Your task to perform on an android device: Search for "bose quietcomfort 35" on amazon, select the first entry, add it to the cart, then select checkout. Image 0: 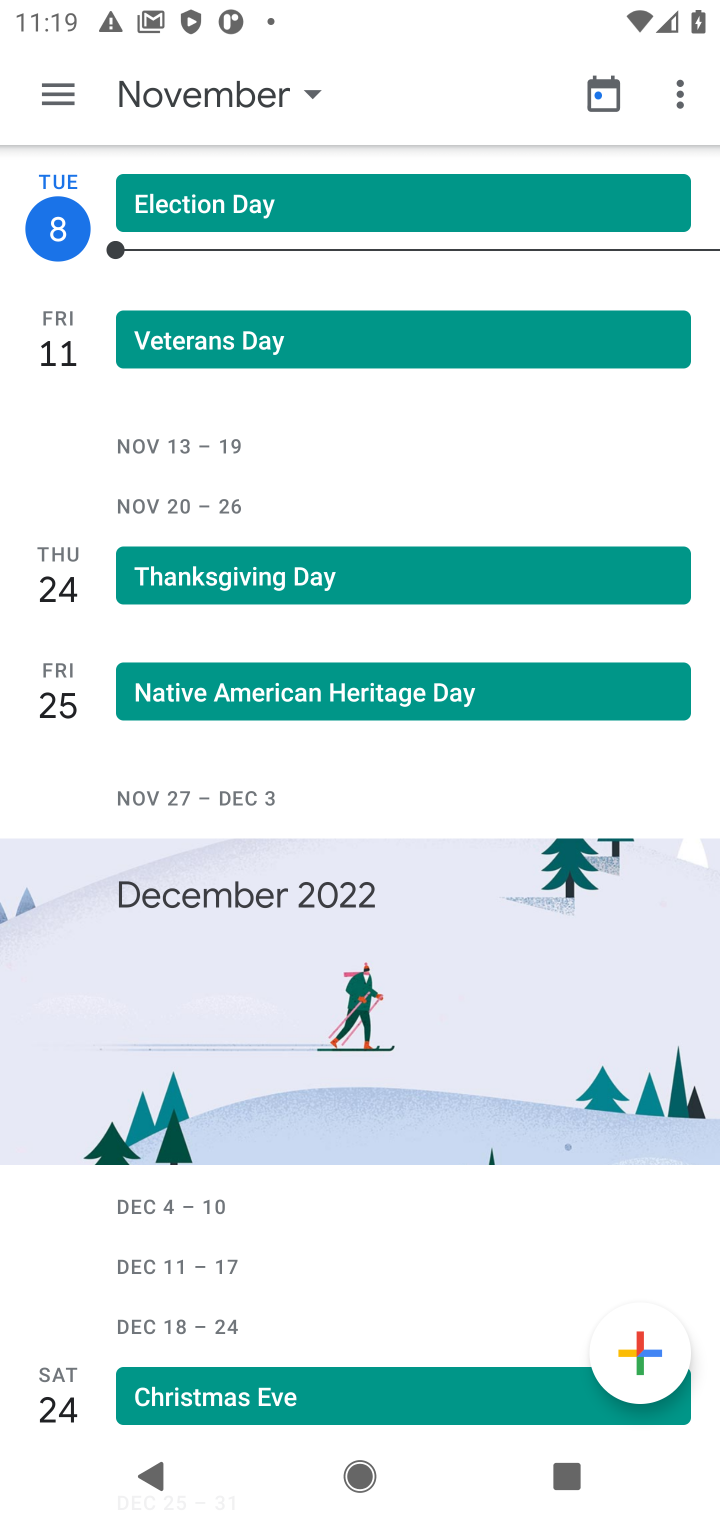
Step 0: press home button
Your task to perform on an android device: Search for "bose quietcomfort 35" on amazon, select the first entry, add it to the cart, then select checkout. Image 1: 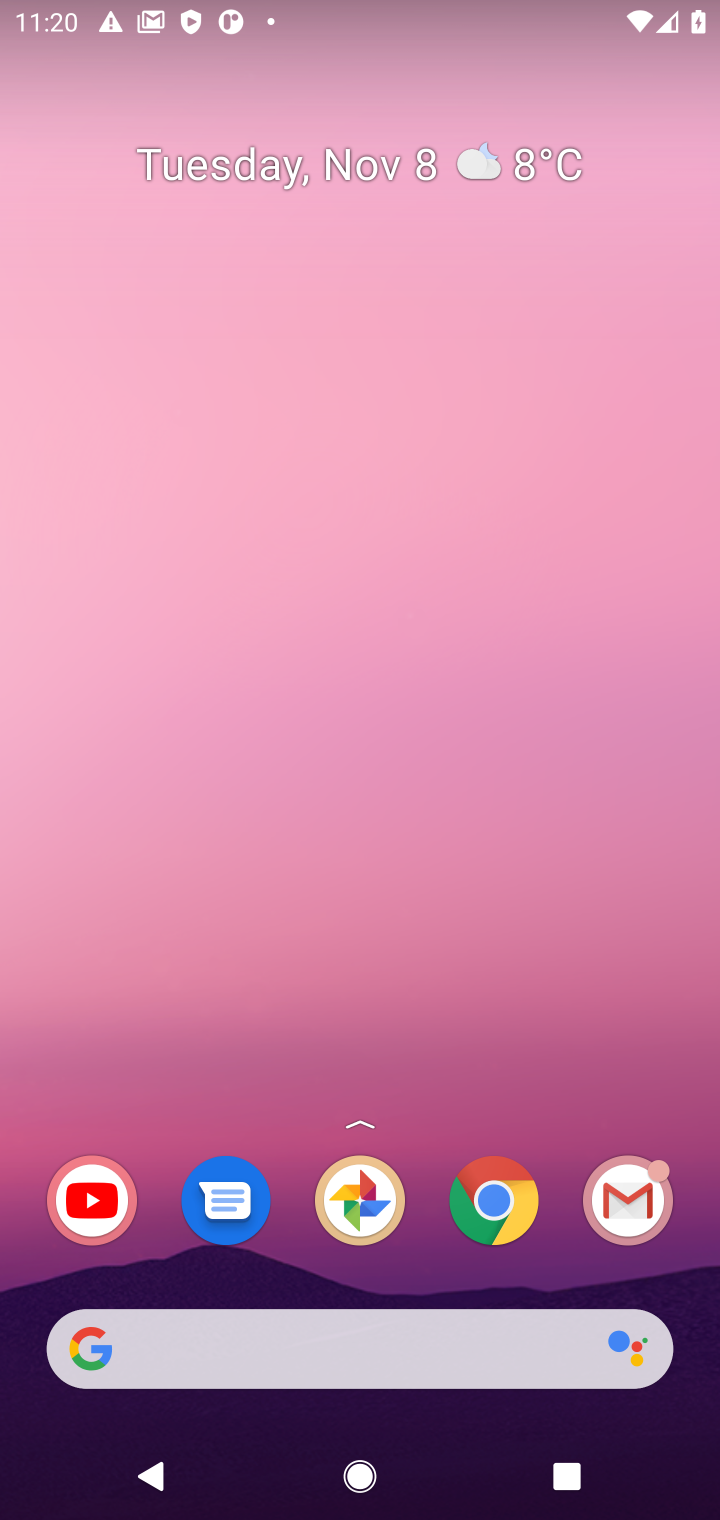
Step 1: click (406, 1371)
Your task to perform on an android device: Search for "bose quietcomfort 35" on amazon, select the first entry, add it to the cart, then select checkout. Image 2: 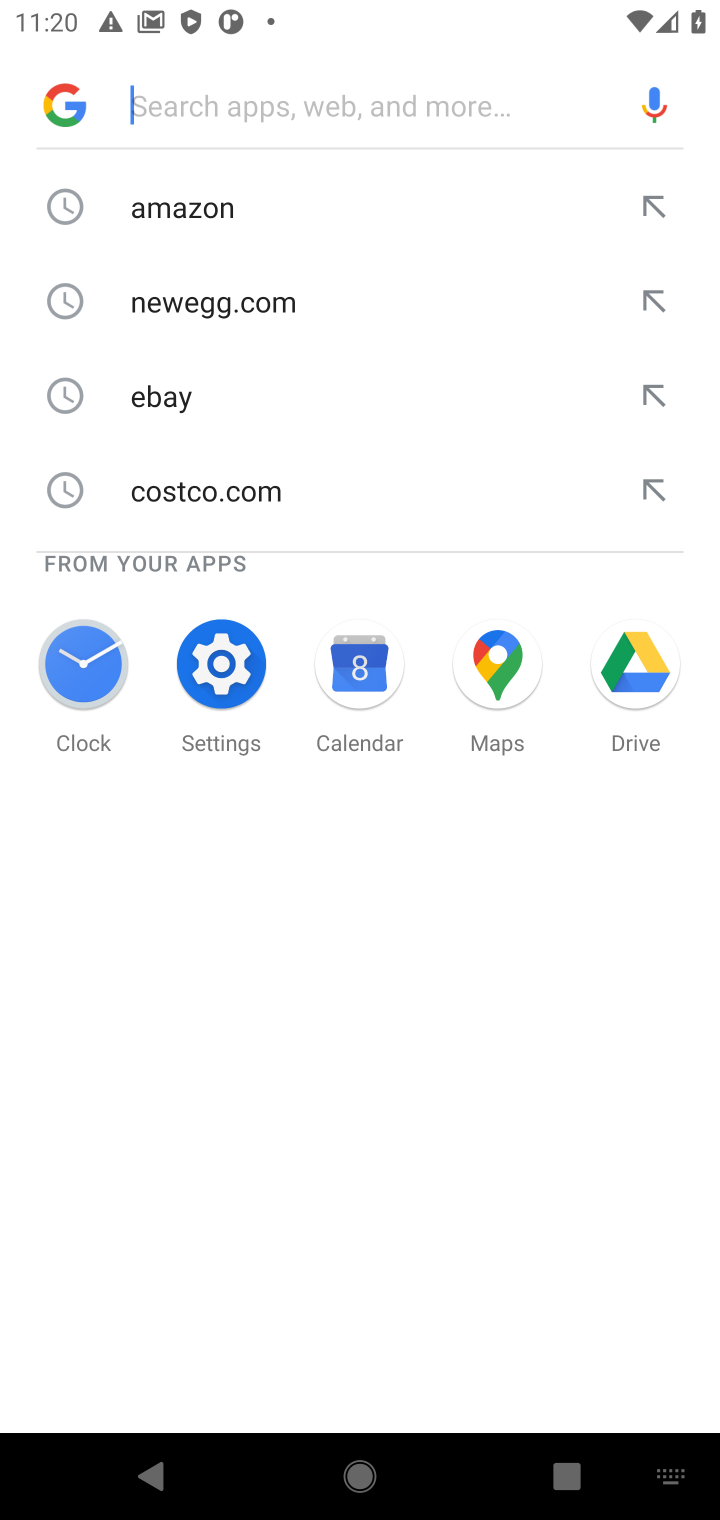
Step 2: click (307, 171)
Your task to perform on an android device: Search for "bose quietcomfort 35" on amazon, select the first entry, add it to the cart, then select checkout. Image 3: 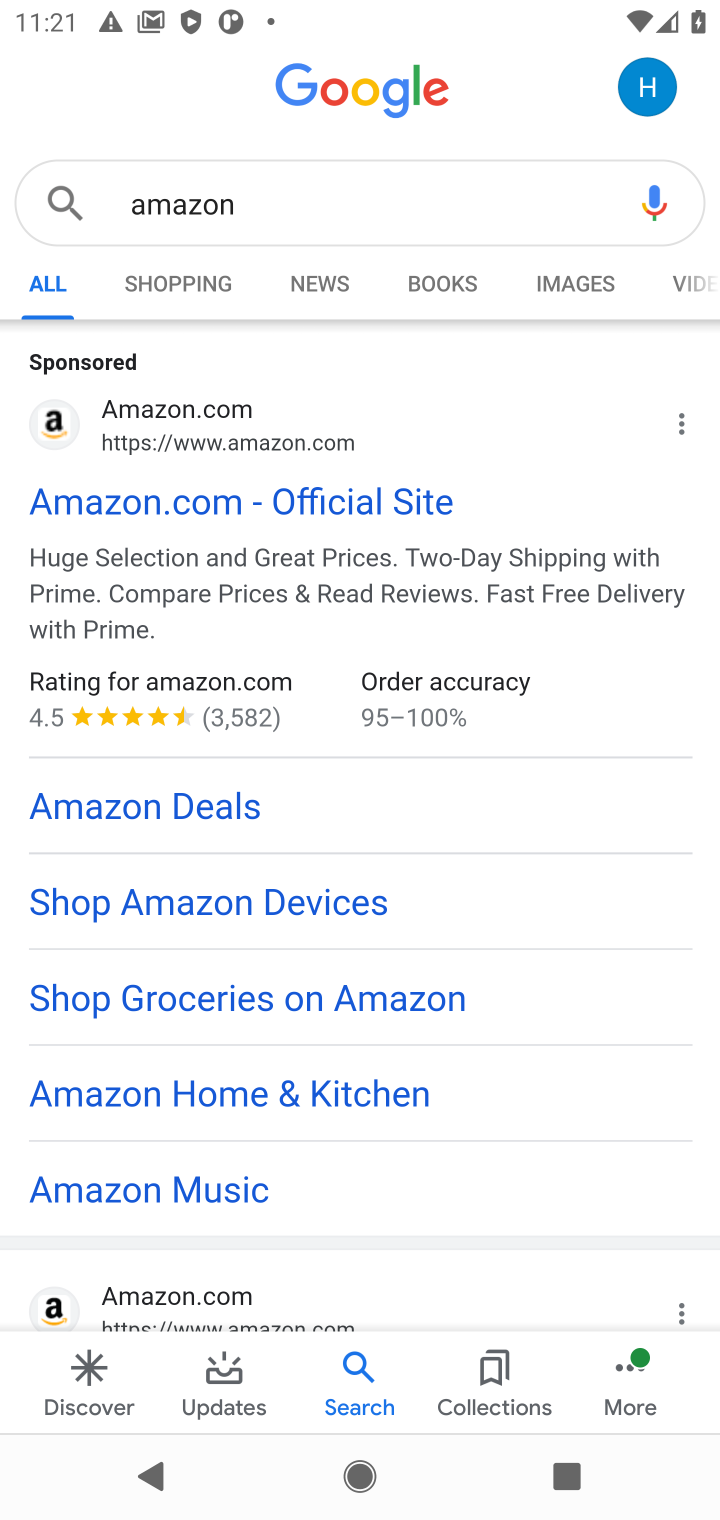
Step 3: click (214, 512)
Your task to perform on an android device: Search for "bose quietcomfort 35" on amazon, select the first entry, add it to the cart, then select checkout. Image 4: 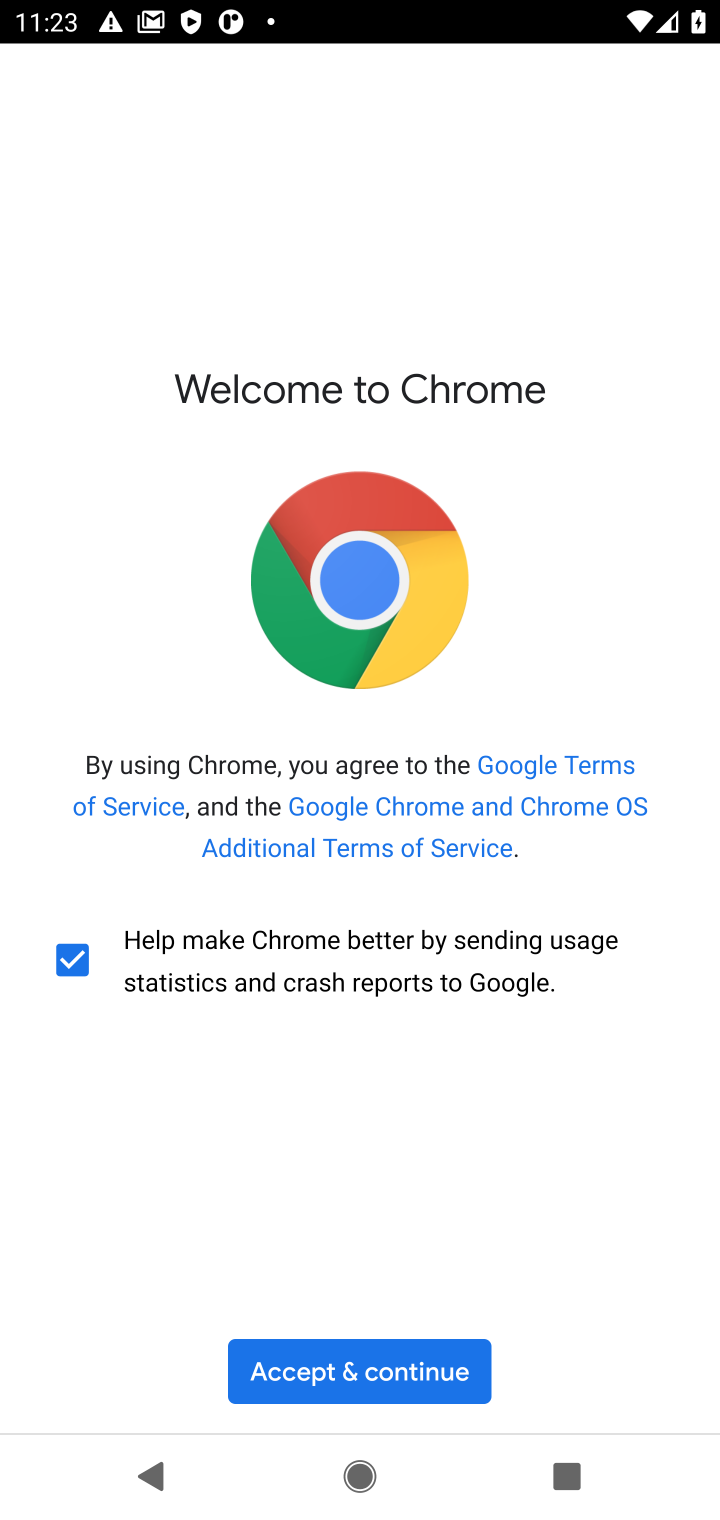
Step 4: click (388, 1394)
Your task to perform on an android device: Search for "bose quietcomfort 35" on amazon, select the first entry, add it to the cart, then select checkout. Image 5: 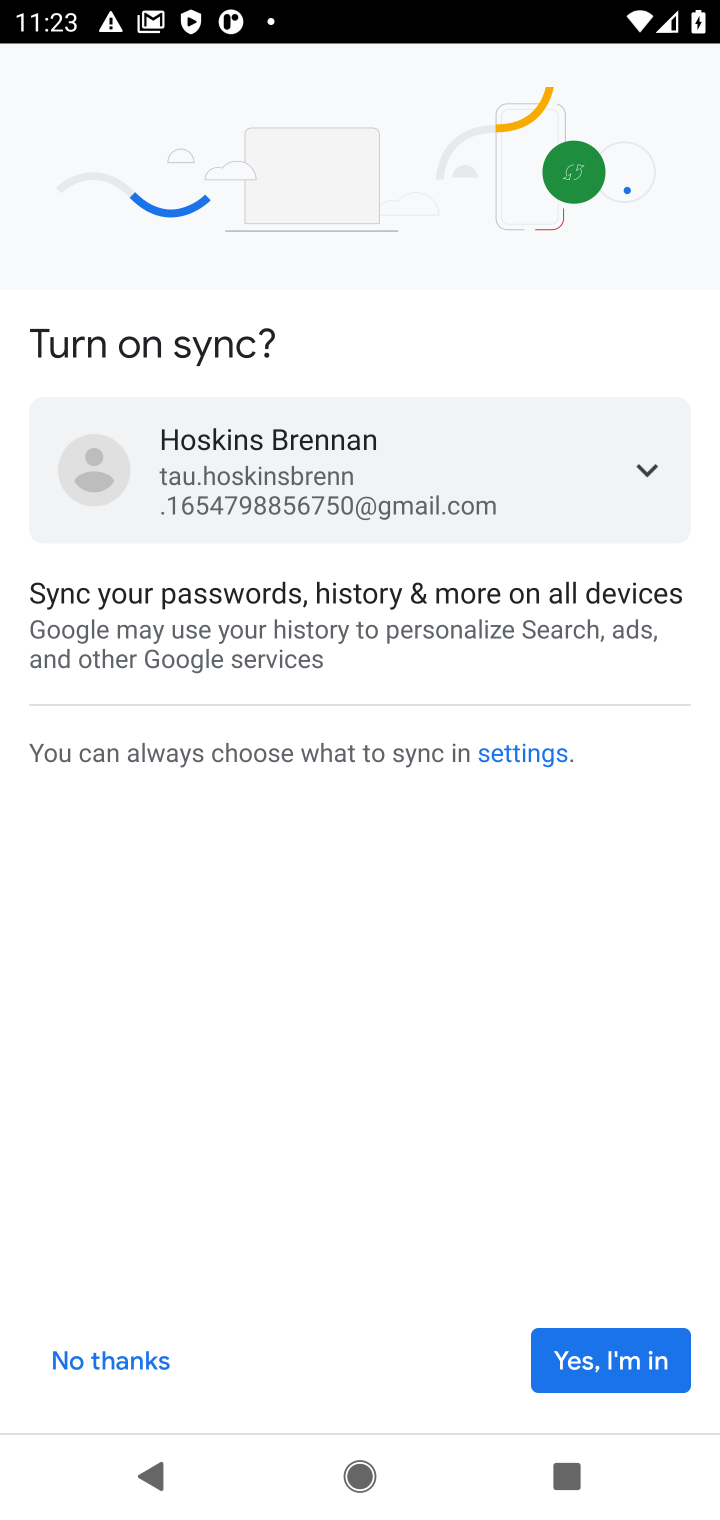
Step 5: task complete